Your task to perform on an android device: check out phone information Image 0: 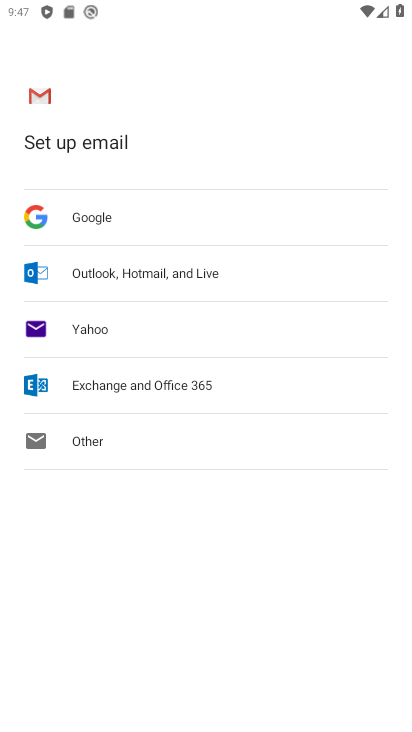
Step 0: press home button
Your task to perform on an android device: check out phone information Image 1: 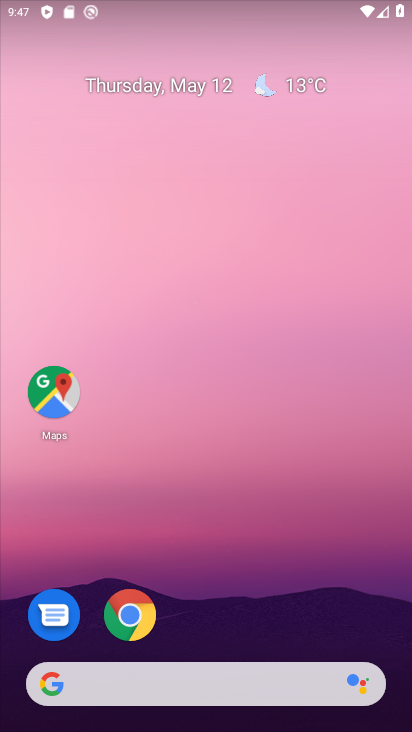
Step 1: drag from (365, 569) to (378, 101)
Your task to perform on an android device: check out phone information Image 2: 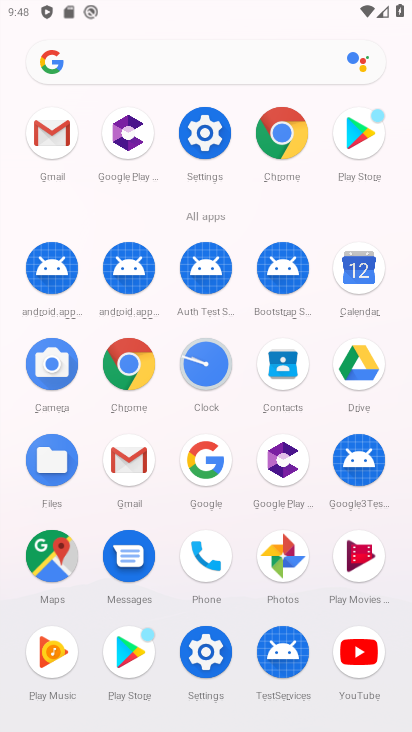
Step 2: click (210, 142)
Your task to perform on an android device: check out phone information Image 3: 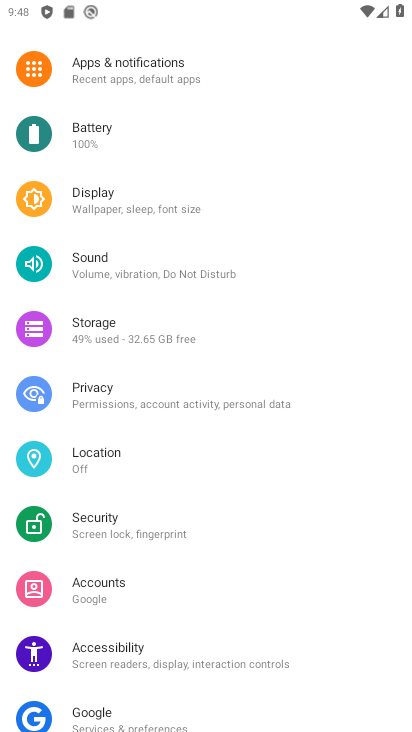
Step 3: drag from (154, 622) to (197, 24)
Your task to perform on an android device: check out phone information Image 4: 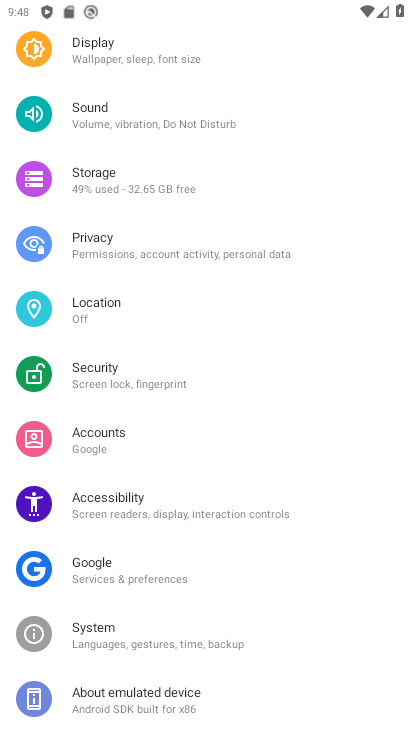
Step 4: drag from (219, 586) to (170, 177)
Your task to perform on an android device: check out phone information Image 5: 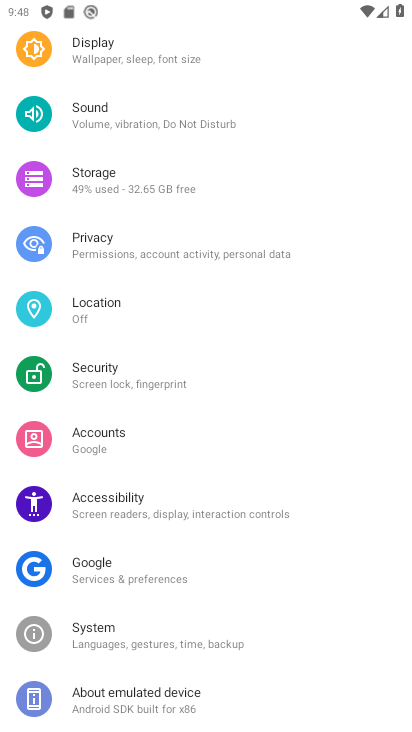
Step 5: drag from (178, 203) to (260, 655)
Your task to perform on an android device: check out phone information Image 6: 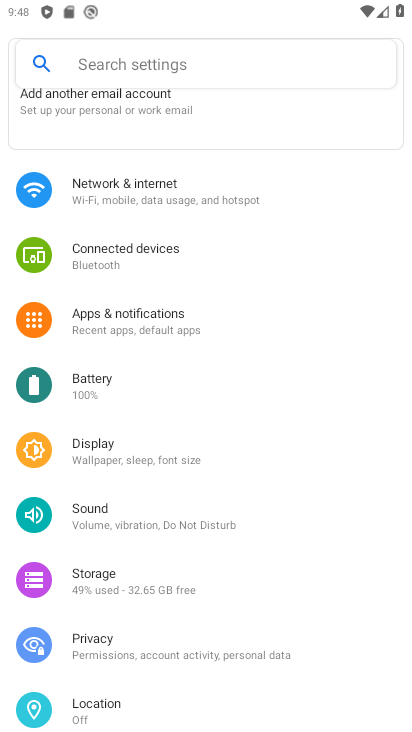
Step 6: drag from (243, 688) to (221, 21)
Your task to perform on an android device: check out phone information Image 7: 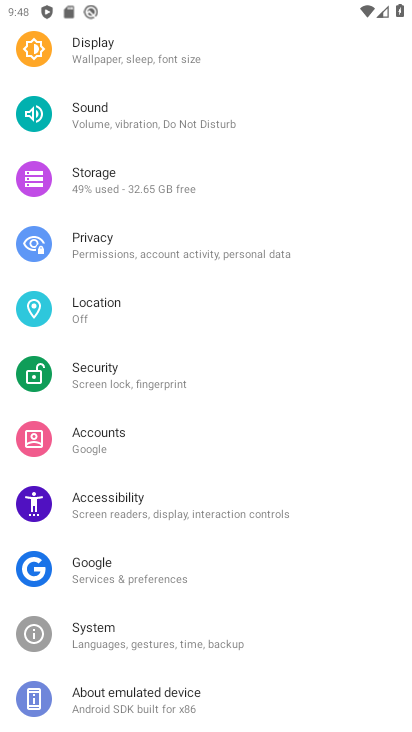
Step 7: click (165, 700)
Your task to perform on an android device: check out phone information Image 8: 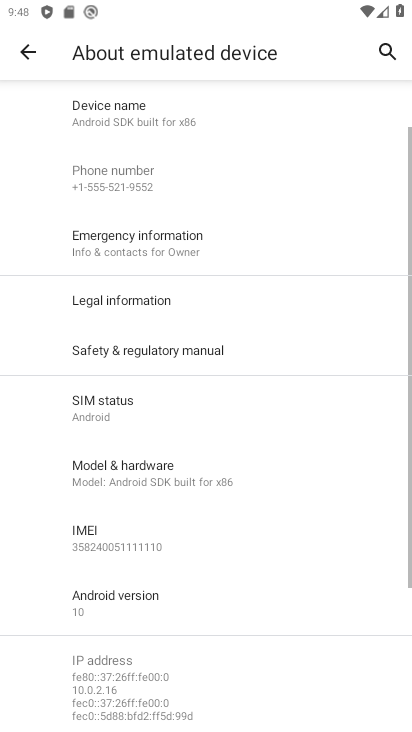
Step 8: task complete